Your task to perform on an android device: change notifications settings Image 0: 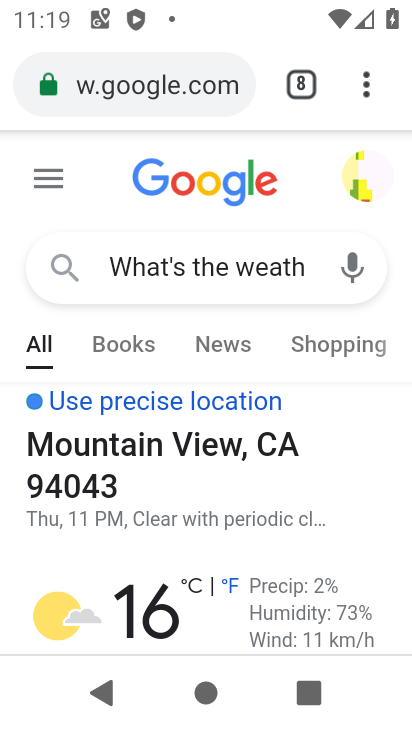
Step 0: press home button
Your task to perform on an android device: change notifications settings Image 1: 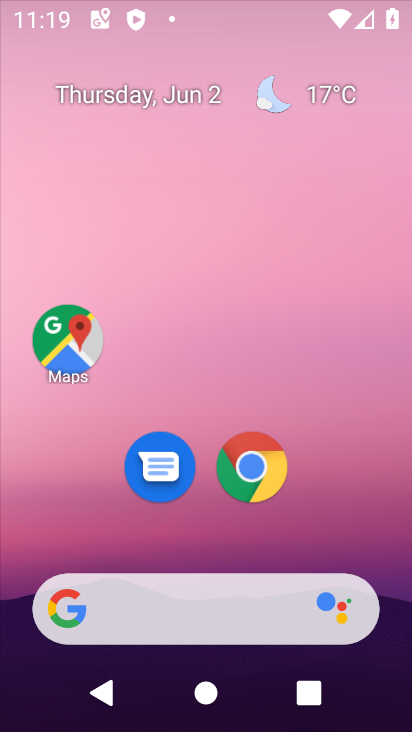
Step 1: drag from (212, 474) to (215, 258)
Your task to perform on an android device: change notifications settings Image 2: 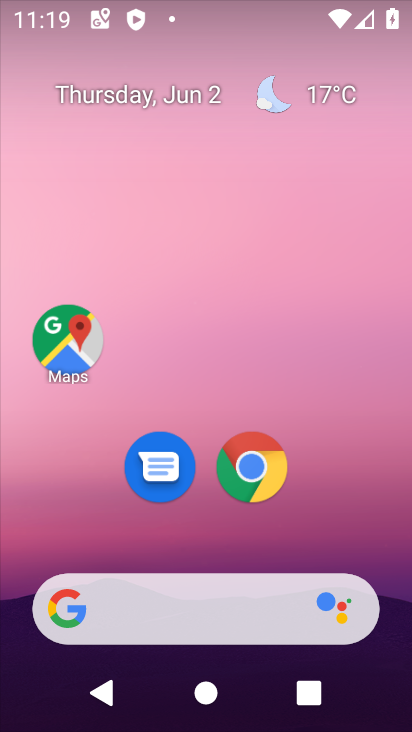
Step 2: drag from (164, 607) to (161, 201)
Your task to perform on an android device: change notifications settings Image 3: 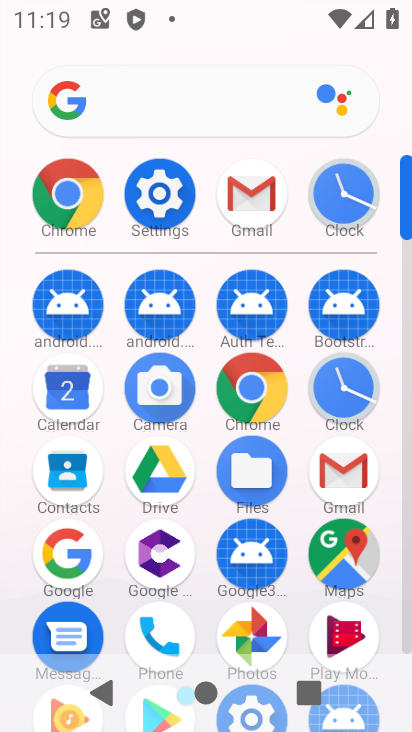
Step 3: click (153, 175)
Your task to perform on an android device: change notifications settings Image 4: 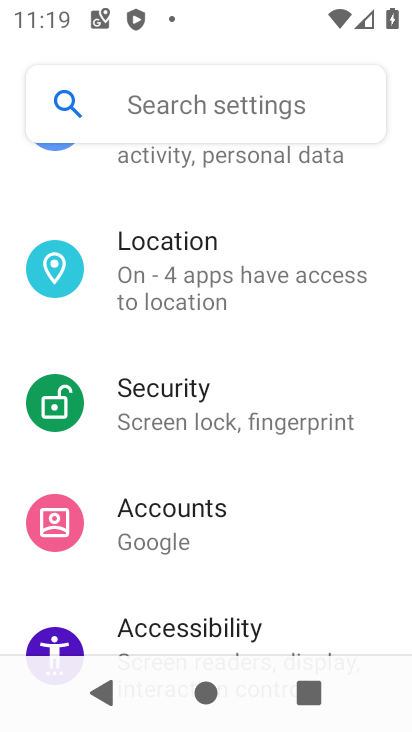
Step 4: drag from (184, 219) to (162, 573)
Your task to perform on an android device: change notifications settings Image 5: 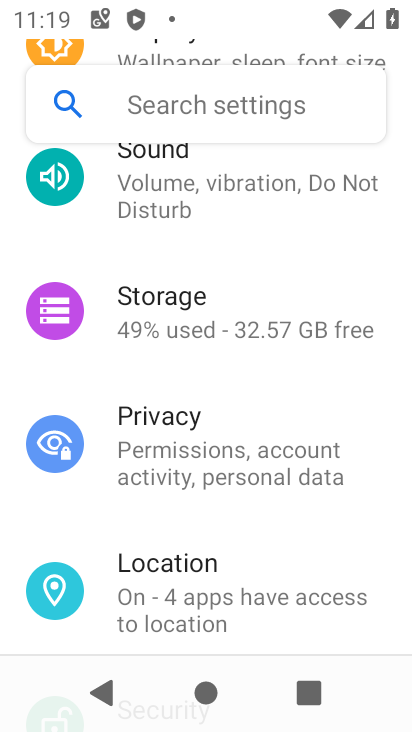
Step 5: drag from (221, 196) to (195, 597)
Your task to perform on an android device: change notifications settings Image 6: 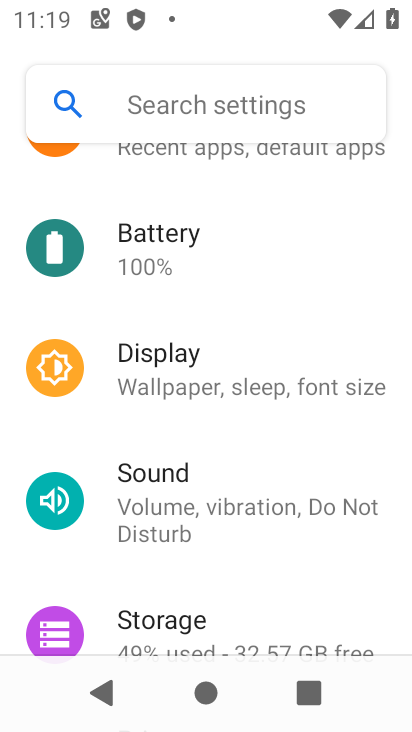
Step 6: drag from (203, 212) to (199, 598)
Your task to perform on an android device: change notifications settings Image 7: 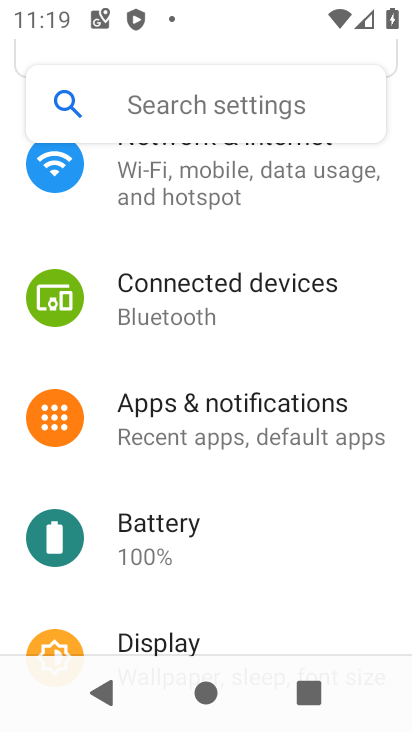
Step 7: drag from (183, 235) to (166, 556)
Your task to perform on an android device: change notifications settings Image 8: 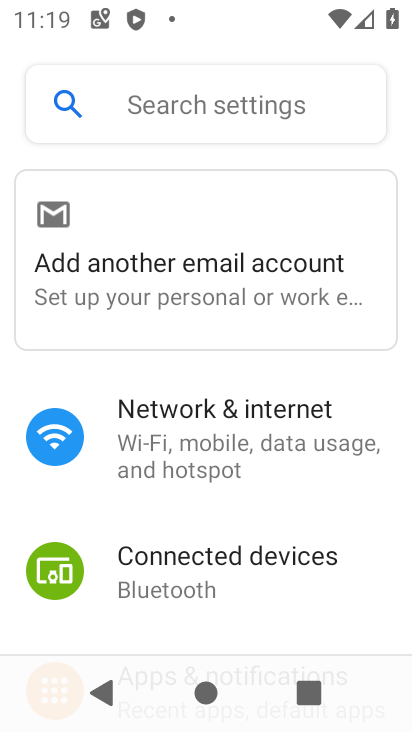
Step 8: click (146, 412)
Your task to perform on an android device: change notifications settings Image 9: 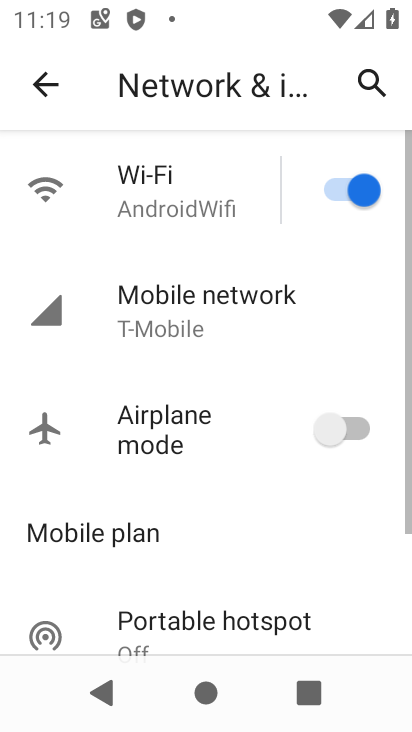
Step 9: click (22, 92)
Your task to perform on an android device: change notifications settings Image 10: 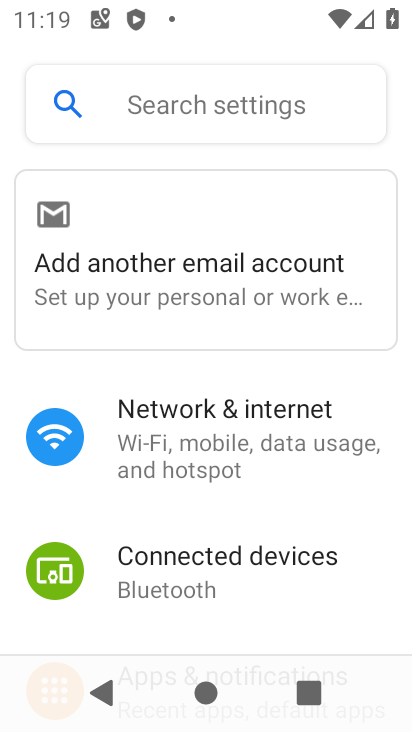
Step 10: drag from (161, 548) to (174, 361)
Your task to perform on an android device: change notifications settings Image 11: 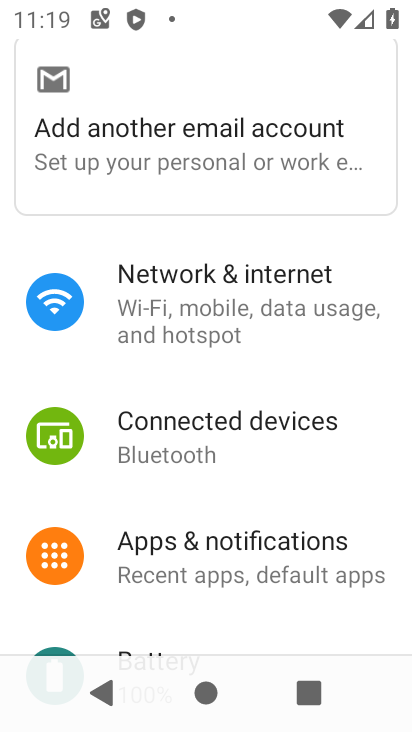
Step 11: click (182, 542)
Your task to perform on an android device: change notifications settings Image 12: 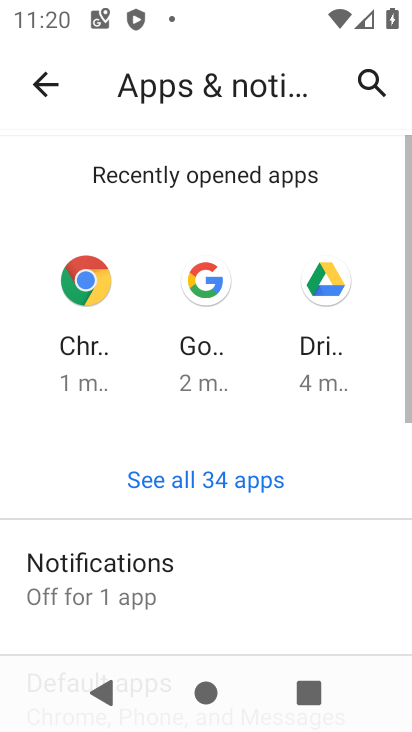
Step 12: drag from (172, 538) to (176, 309)
Your task to perform on an android device: change notifications settings Image 13: 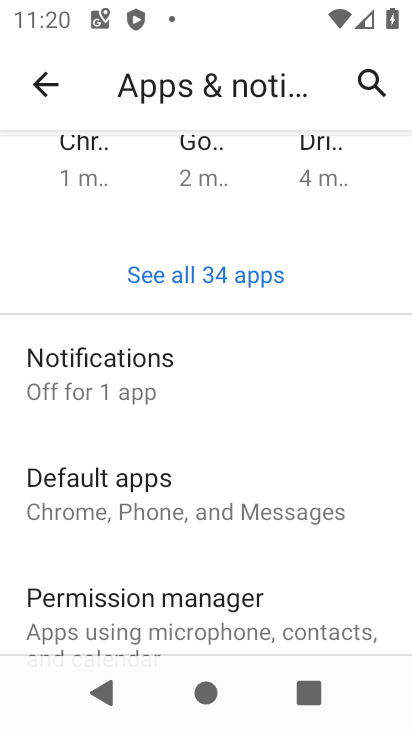
Step 13: click (129, 350)
Your task to perform on an android device: change notifications settings Image 14: 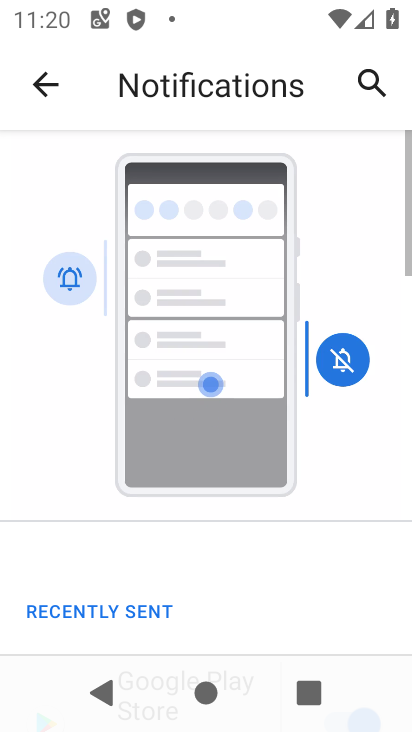
Step 14: drag from (131, 565) to (147, 235)
Your task to perform on an android device: change notifications settings Image 15: 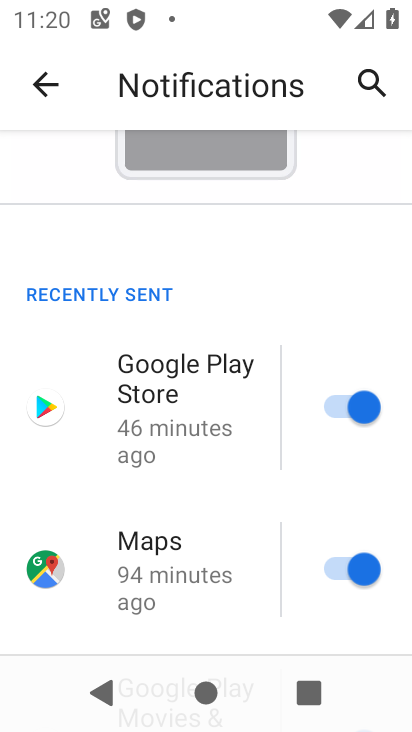
Step 15: click (347, 393)
Your task to perform on an android device: change notifications settings Image 16: 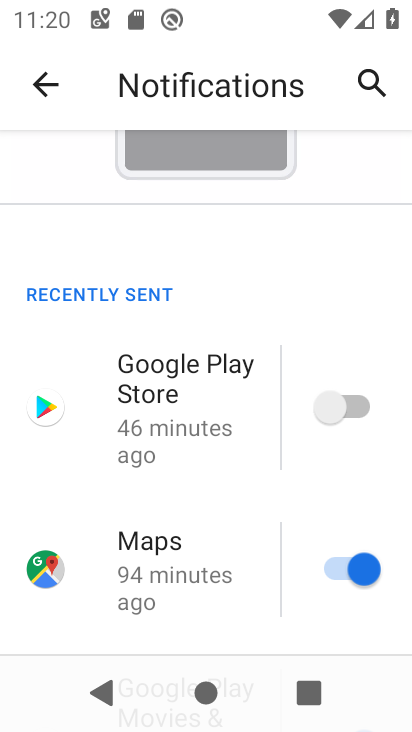
Step 16: click (336, 587)
Your task to perform on an android device: change notifications settings Image 17: 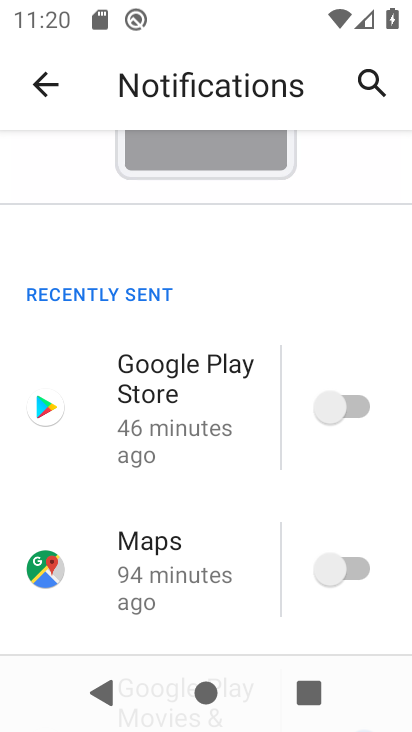
Step 17: drag from (150, 570) to (145, 248)
Your task to perform on an android device: change notifications settings Image 18: 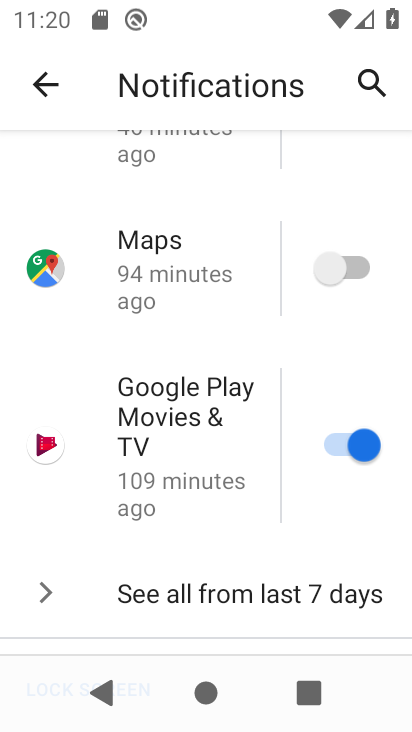
Step 18: click (346, 447)
Your task to perform on an android device: change notifications settings Image 19: 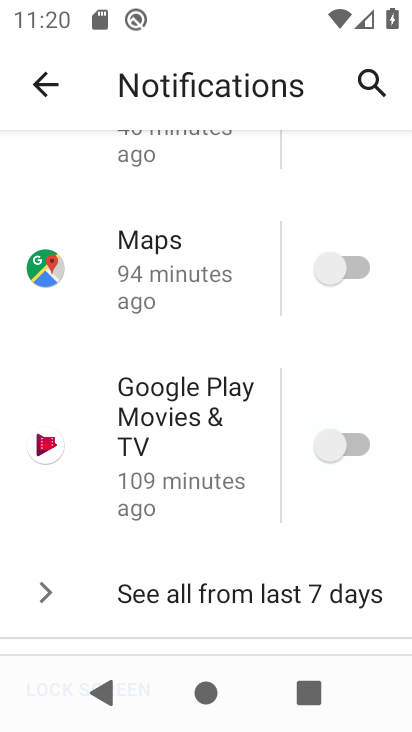
Step 19: click (214, 611)
Your task to perform on an android device: change notifications settings Image 20: 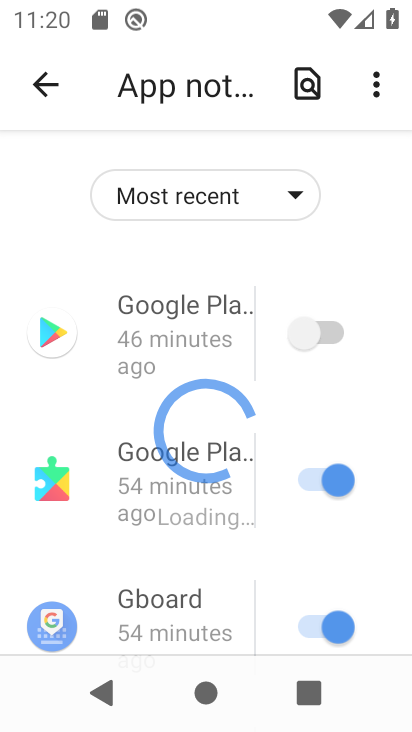
Step 20: drag from (209, 569) to (215, 212)
Your task to perform on an android device: change notifications settings Image 21: 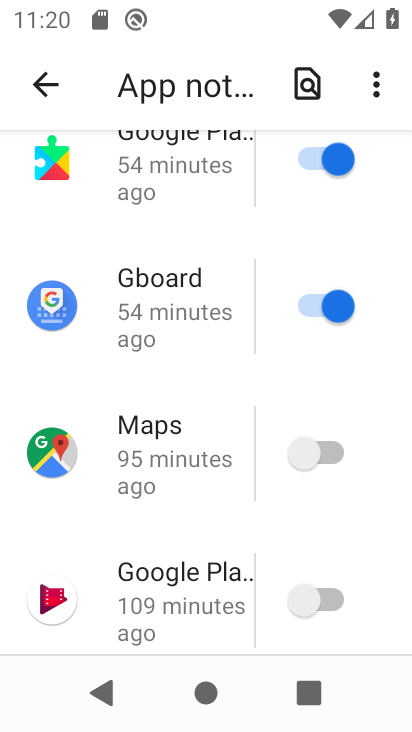
Step 21: click (321, 174)
Your task to perform on an android device: change notifications settings Image 22: 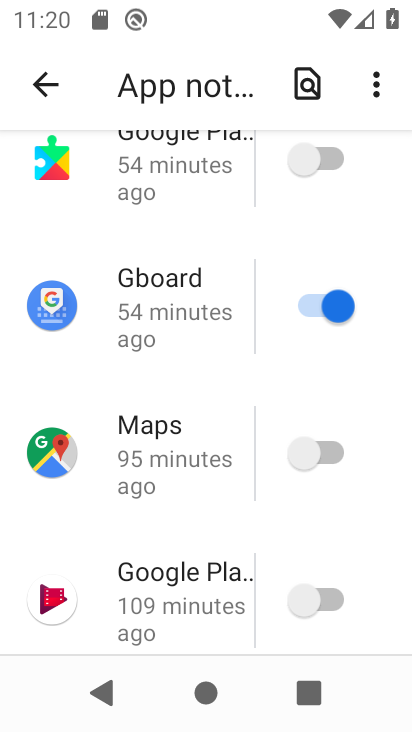
Step 22: click (298, 284)
Your task to perform on an android device: change notifications settings Image 23: 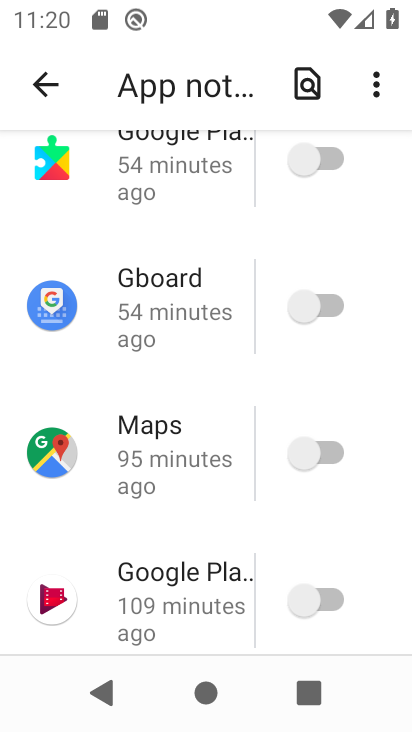
Step 23: drag from (211, 490) to (212, 239)
Your task to perform on an android device: change notifications settings Image 24: 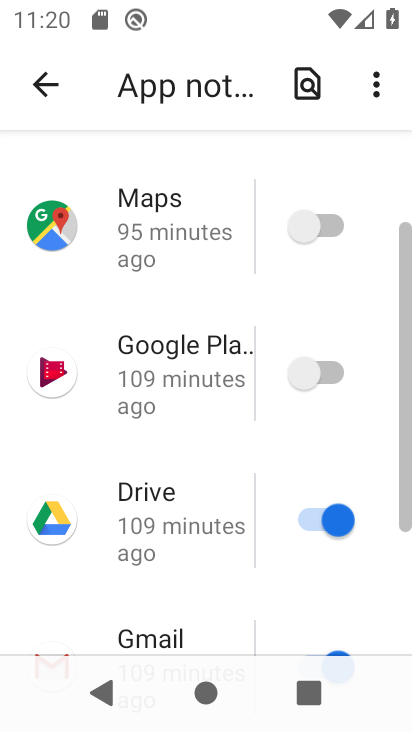
Step 24: click (307, 536)
Your task to perform on an android device: change notifications settings Image 25: 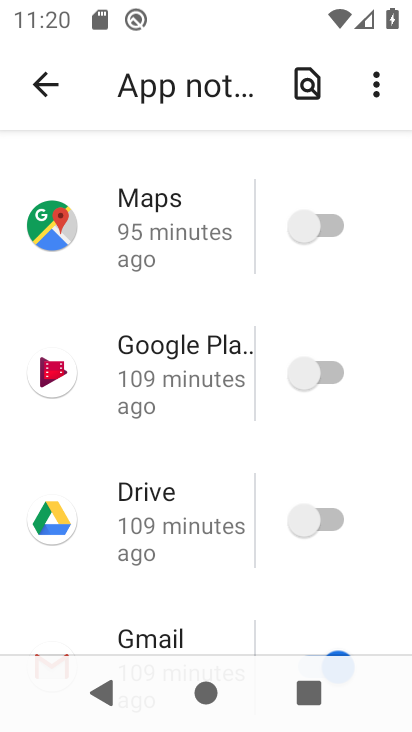
Step 25: task complete